Your task to perform on an android device: turn on sleep mode Image 0: 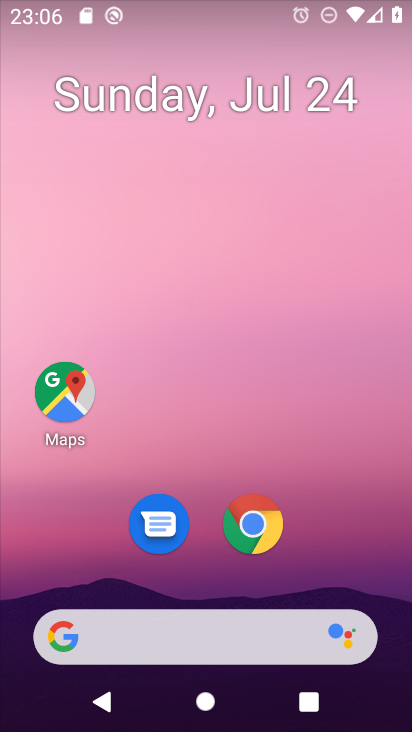
Step 0: press home button
Your task to perform on an android device: turn on sleep mode Image 1: 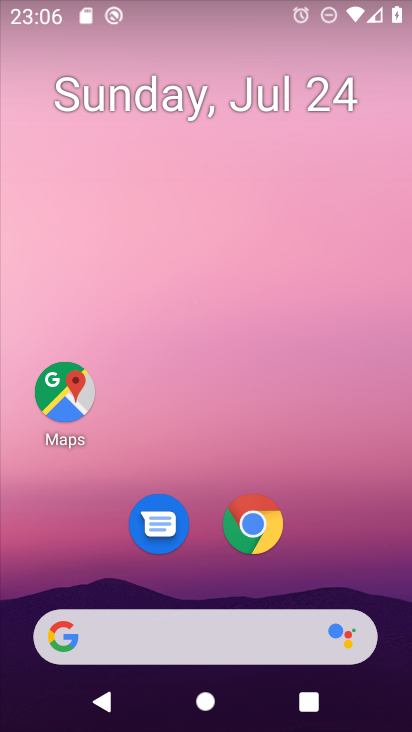
Step 1: drag from (182, 638) to (305, 52)
Your task to perform on an android device: turn on sleep mode Image 2: 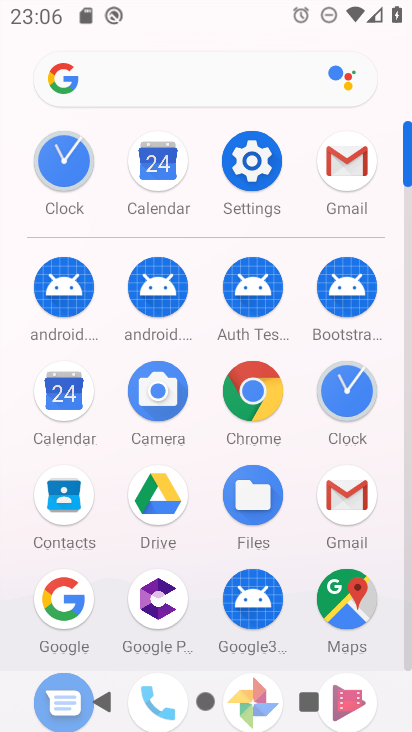
Step 2: click (264, 164)
Your task to perform on an android device: turn on sleep mode Image 3: 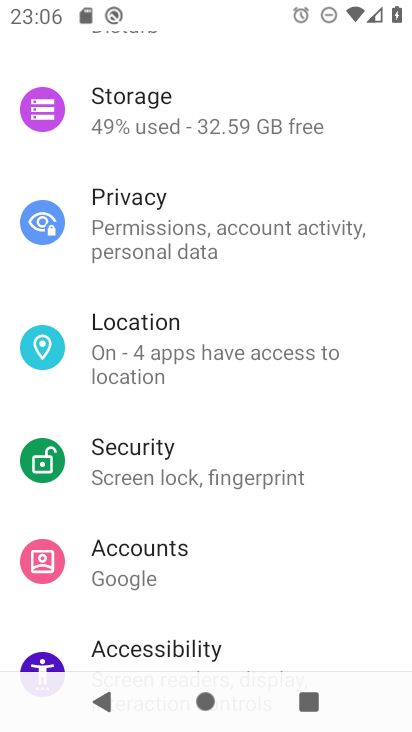
Step 3: drag from (297, 179) to (270, 612)
Your task to perform on an android device: turn on sleep mode Image 4: 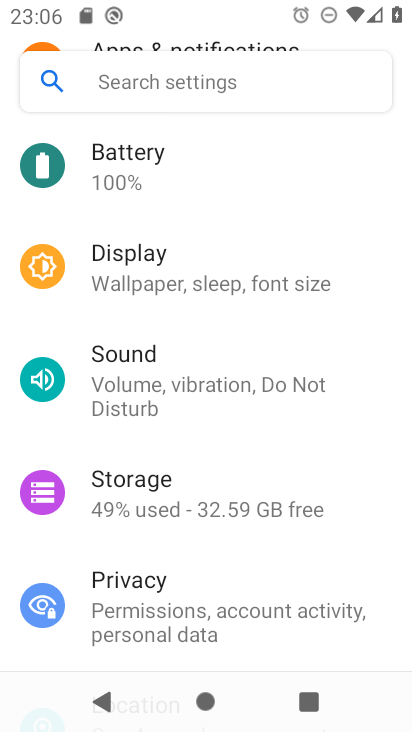
Step 4: click (169, 285)
Your task to perform on an android device: turn on sleep mode Image 5: 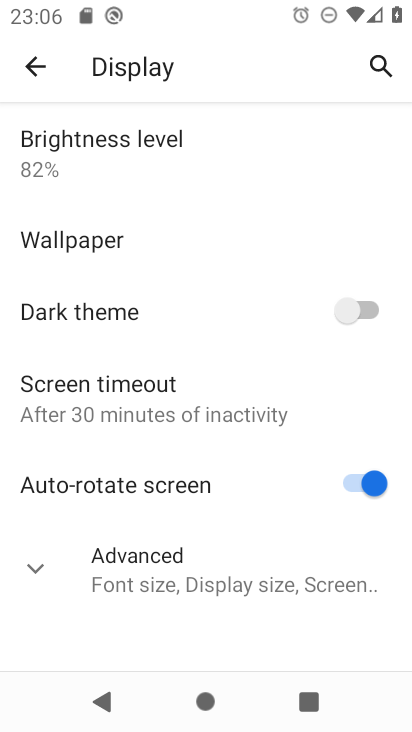
Step 5: click (154, 563)
Your task to perform on an android device: turn on sleep mode Image 6: 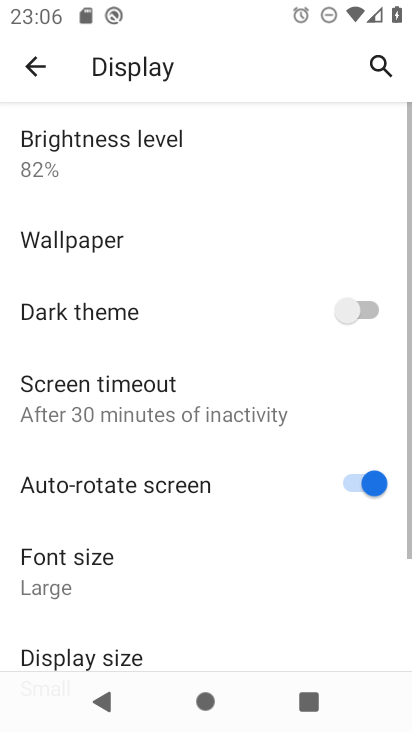
Step 6: task complete